Your task to perform on an android device: What are the best selling refrigerators at Home Depot? Image 0: 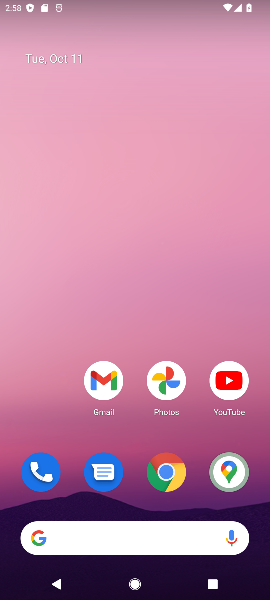
Step 0: click (160, 482)
Your task to perform on an android device: What are the best selling refrigerators at Home Depot? Image 1: 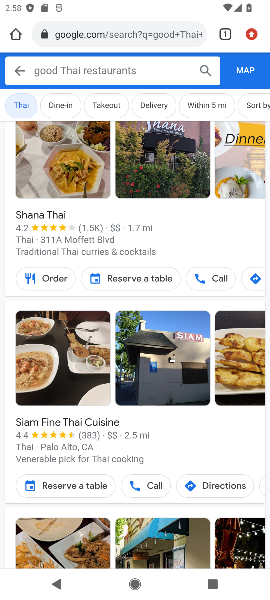
Step 1: click (123, 33)
Your task to perform on an android device: What are the best selling refrigerators at Home Depot? Image 2: 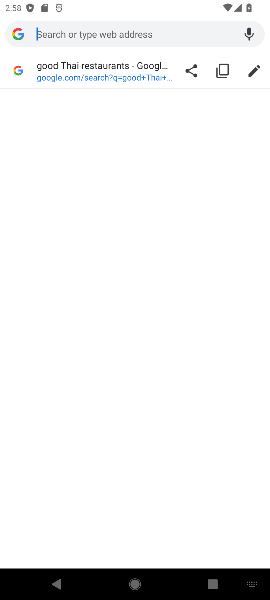
Step 2: type " best selling refrigerators at Home Depot?"
Your task to perform on an android device: What are the best selling refrigerators at Home Depot? Image 3: 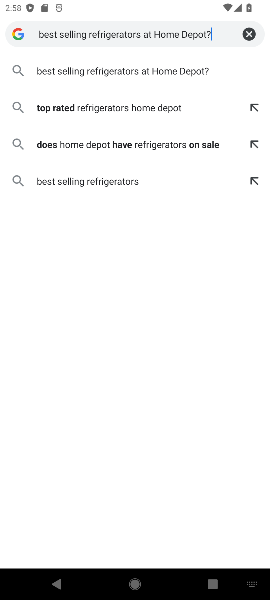
Step 3: click (154, 62)
Your task to perform on an android device: What are the best selling refrigerators at Home Depot? Image 4: 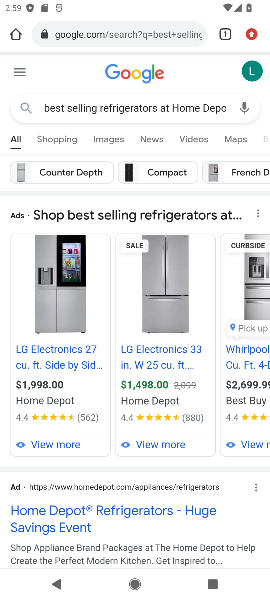
Step 4: click (44, 135)
Your task to perform on an android device: What are the best selling refrigerators at Home Depot? Image 5: 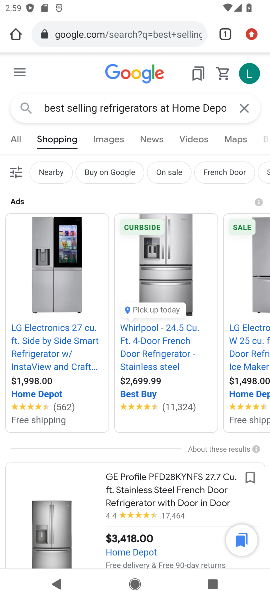
Step 5: drag from (104, 496) to (141, 225)
Your task to perform on an android device: What are the best selling refrigerators at Home Depot? Image 6: 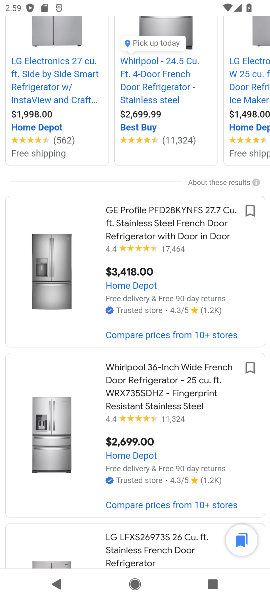
Step 6: drag from (81, 480) to (140, 240)
Your task to perform on an android device: What are the best selling refrigerators at Home Depot? Image 7: 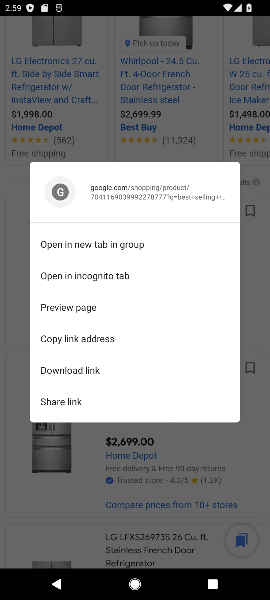
Step 7: click (85, 498)
Your task to perform on an android device: What are the best selling refrigerators at Home Depot? Image 8: 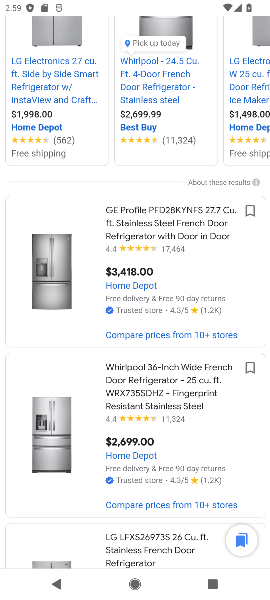
Step 8: task complete